Your task to perform on an android device: Is it going to rain today? Image 0: 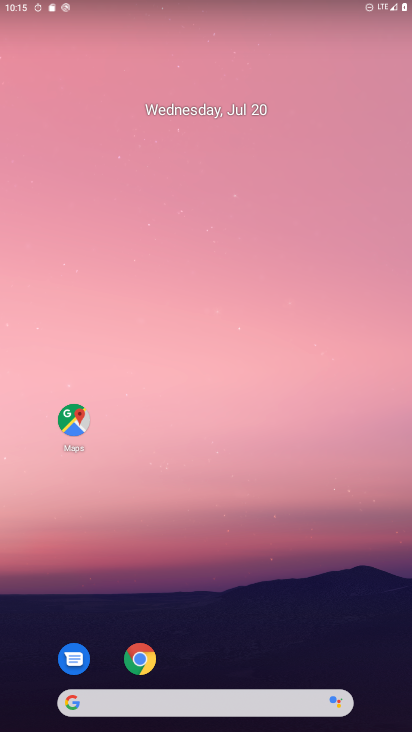
Step 0: drag from (268, 456) to (292, 135)
Your task to perform on an android device: Is it going to rain today? Image 1: 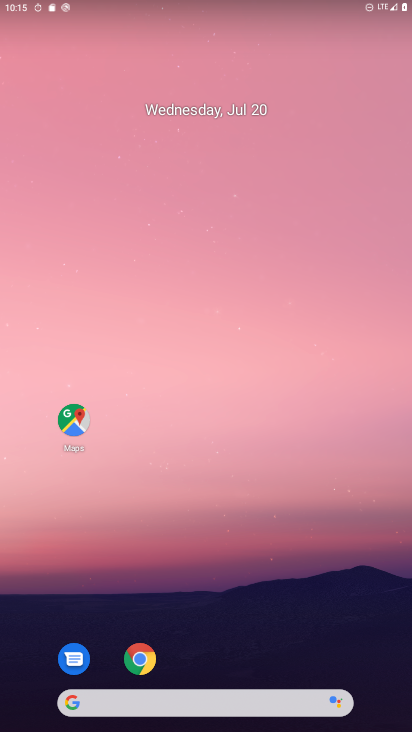
Step 1: drag from (268, 637) to (224, 75)
Your task to perform on an android device: Is it going to rain today? Image 2: 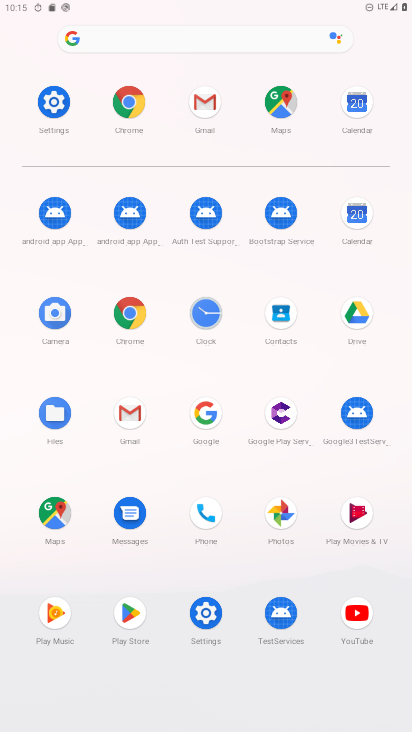
Step 2: click (123, 103)
Your task to perform on an android device: Is it going to rain today? Image 3: 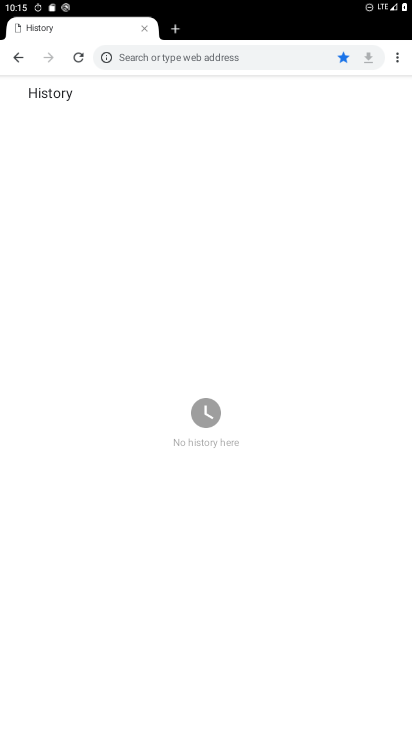
Step 3: click (159, 66)
Your task to perform on an android device: Is it going to rain today? Image 4: 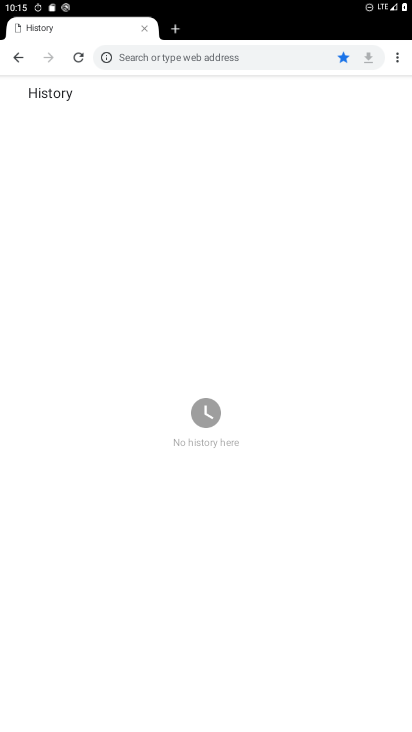
Step 4: click (163, 58)
Your task to perform on an android device: Is it going to rain today? Image 5: 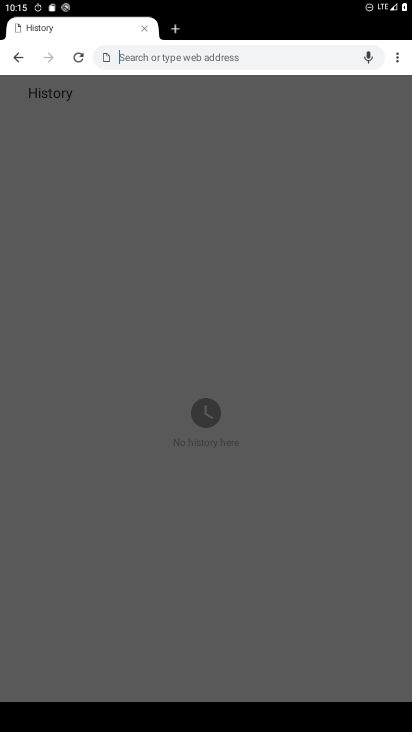
Step 5: type "weather"
Your task to perform on an android device: Is it going to rain today? Image 6: 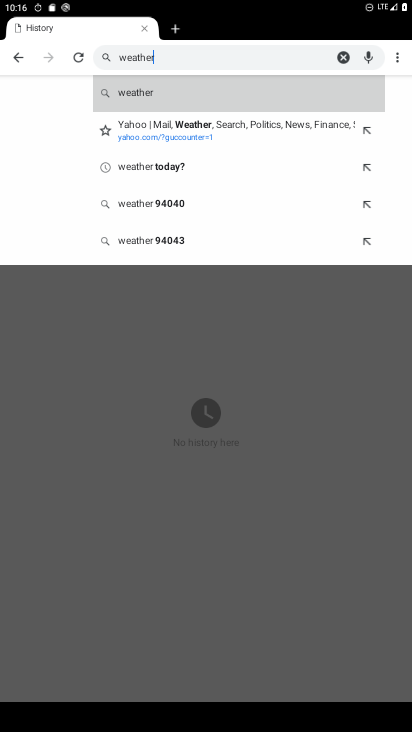
Step 6: click (140, 89)
Your task to perform on an android device: Is it going to rain today? Image 7: 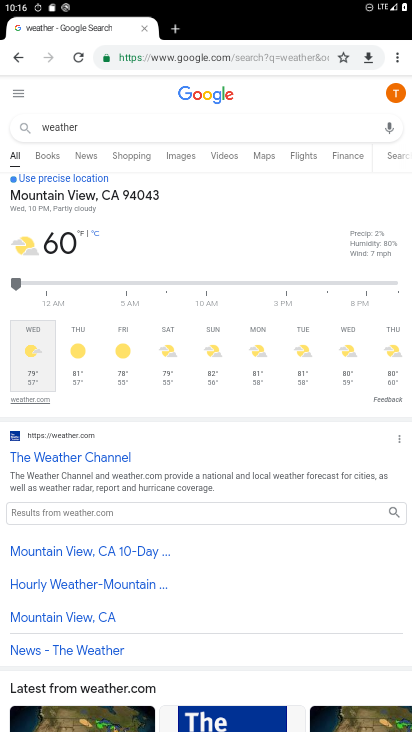
Step 7: task complete